Your task to perform on an android device: Go to Google Image 0: 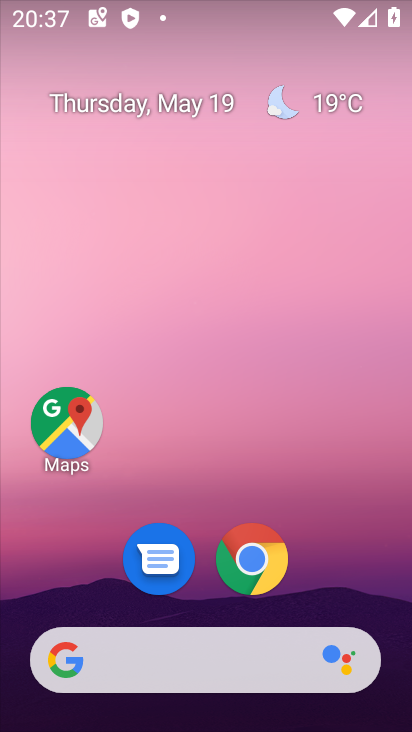
Step 0: drag from (199, 643) to (279, 184)
Your task to perform on an android device: Go to Google Image 1: 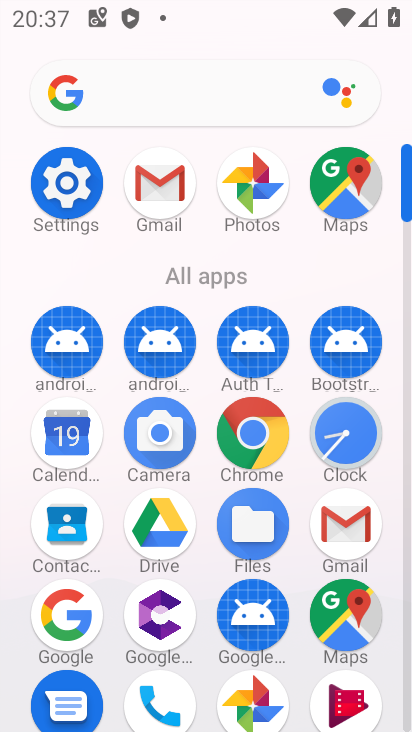
Step 1: click (63, 619)
Your task to perform on an android device: Go to Google Image 2: 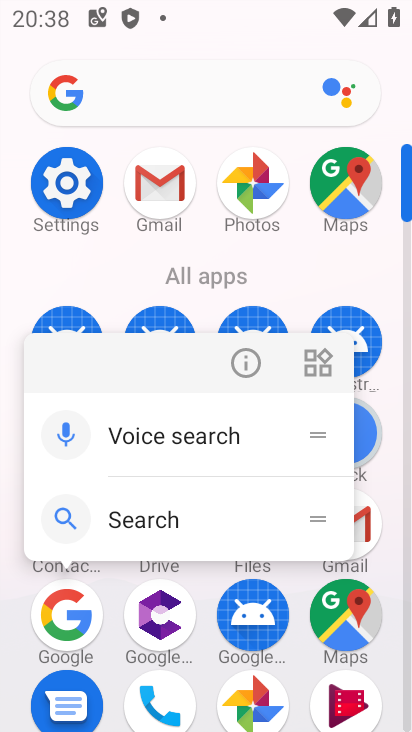
Step 2: click (63, 630)
Your task to perform on an android device: Go to Google Image 3: 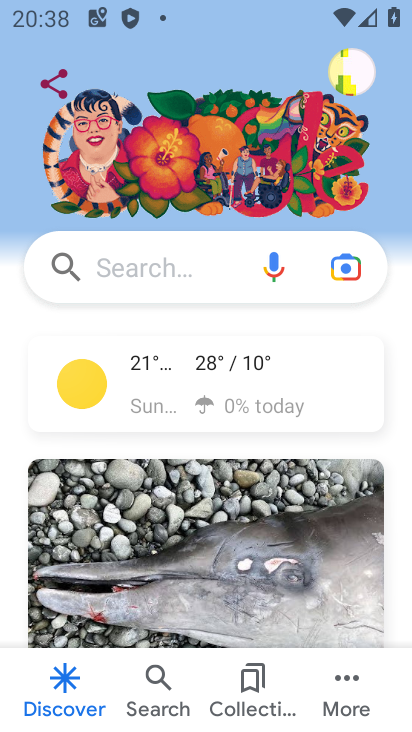
Step 3: task complete